Your task to perform on an android device: See recent photos Image 0: 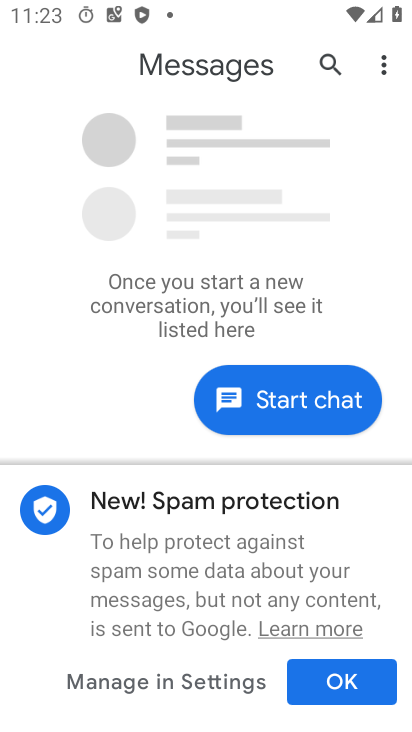
Step 0: press back button
Your task to perform on an android device: See recent photos Image 1: 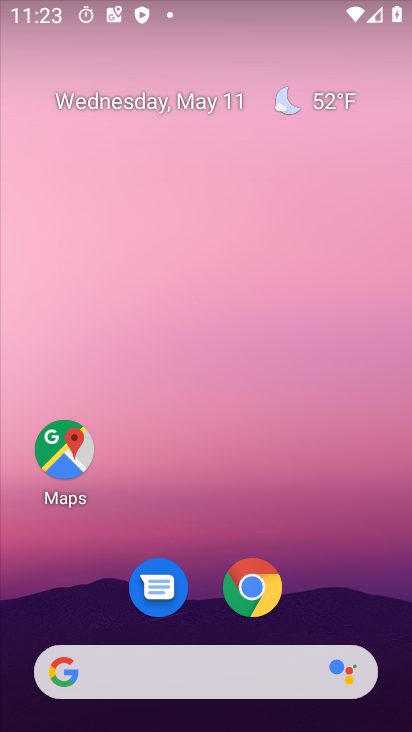
Step 1: drag from (183, 693) to (342, 245)
Your task to perform on an android device: See recent photos Image 2: 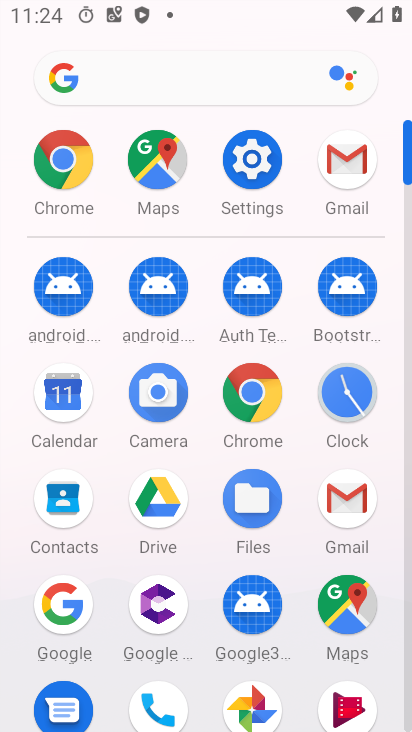
Step 2: click (253, 699)
Your task to perform on an android device: See recent photos Image 3: 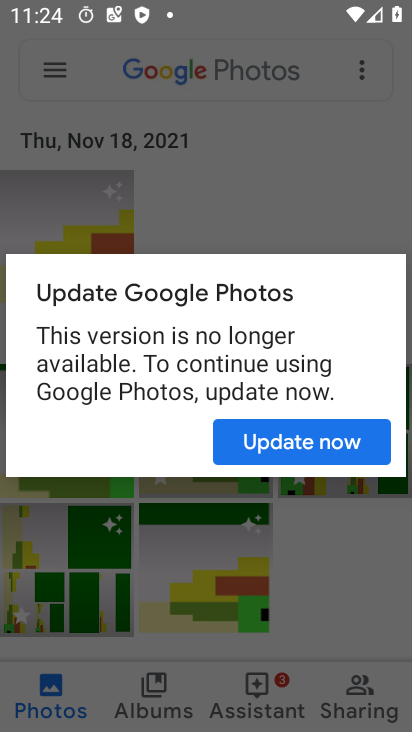
Step 3: click (300, 447)
Your task to perform on an android device: See recent photos Image 4: 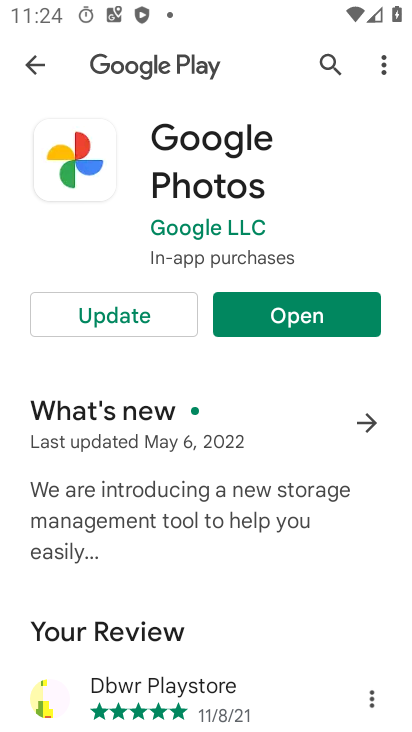
Step 4: click (289, 320)
Your task to perform on an android device: See recent photos Image 5: 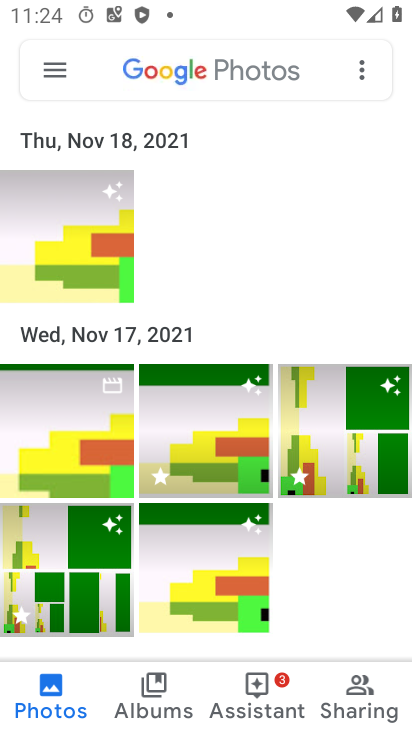
Step 5: task complete